Your task to perform on an android device: toggle location history Image 0: 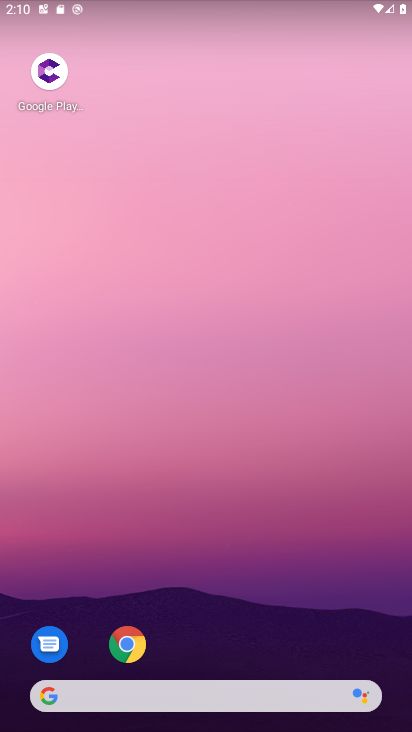
Step 0: drag from (216, 650) to (309, 198)
Your task to perform on an android device: toggle location history Image 1: 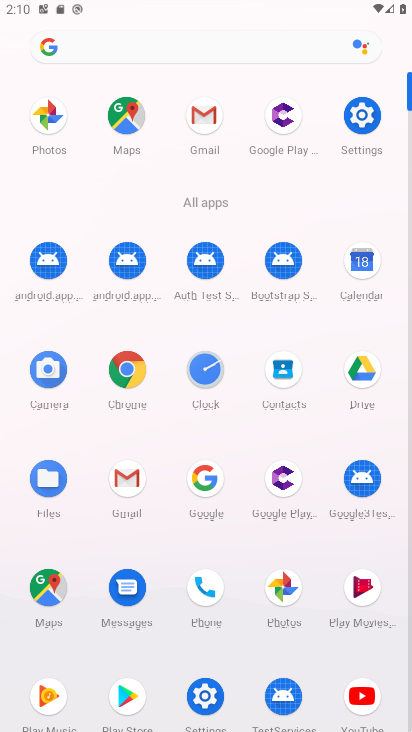
Step 1: drag from (185, 627) to (239, 429)
Your task to perform on an android device: toggle location history Image 2: 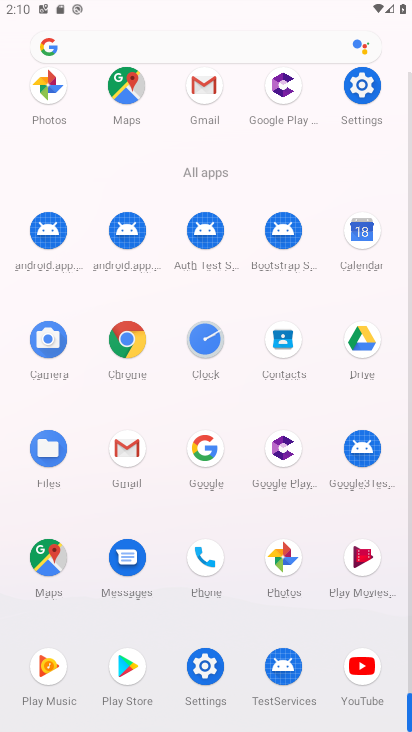
Step 2: click (197, 676)
Your task to perform on an android device: toggle location history Image 3: 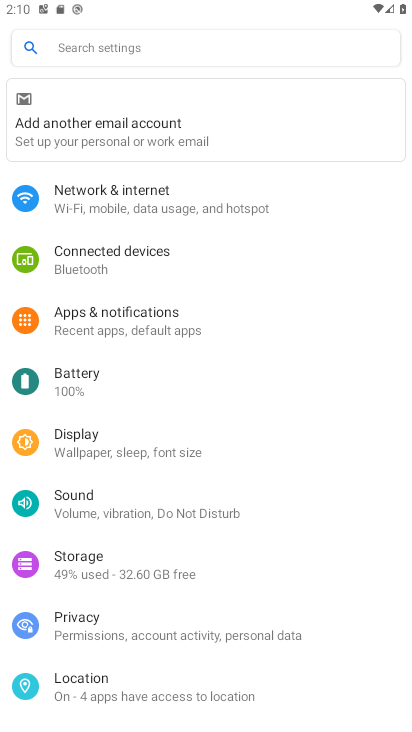
Step 3: drag from (172, 594) to (243, 257)
Your task to perform on an android device: toggle location history Image 4: 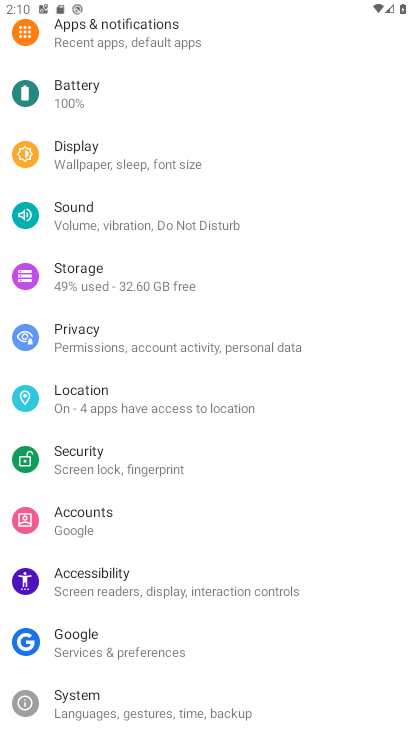
Step 4: click (146, 406)
Your task to perform on an android device: toggle location history Image 5: 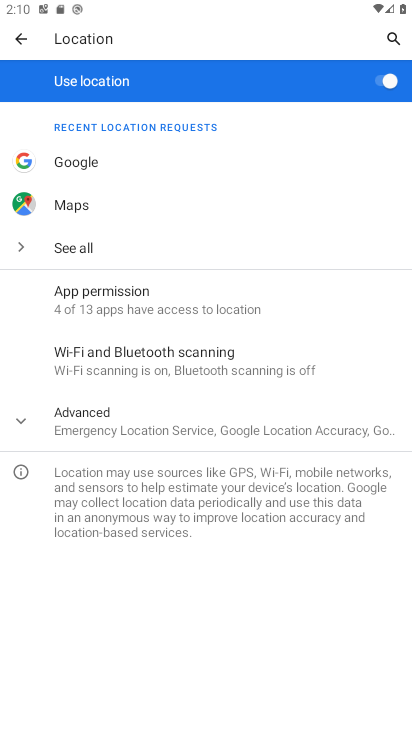
Step 5: click (200, 422)
Your task to perform on an android device: toggle location history Image 6: 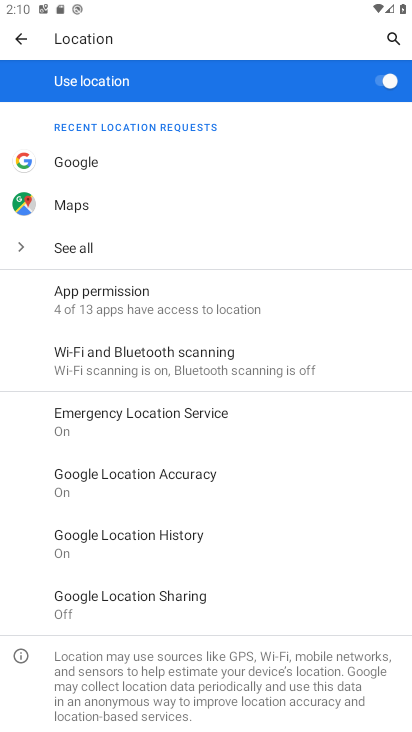
Step 6: click (234, 545)
Your task to perform on an android device: toggle location history Image 7: 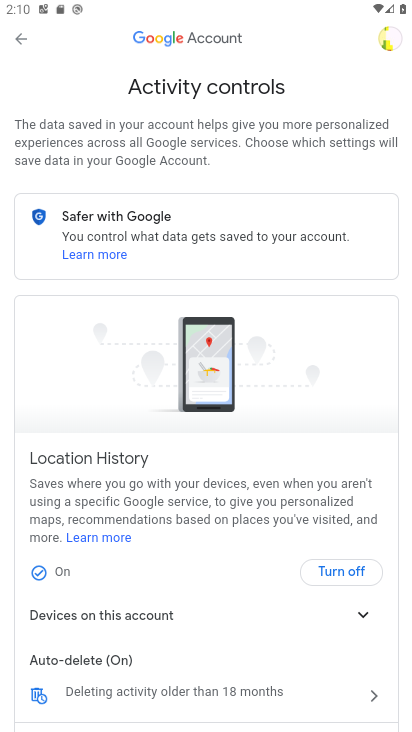
Step 7: click (355, 578)
Your task to perform on an android device: toggle location history Image 8: 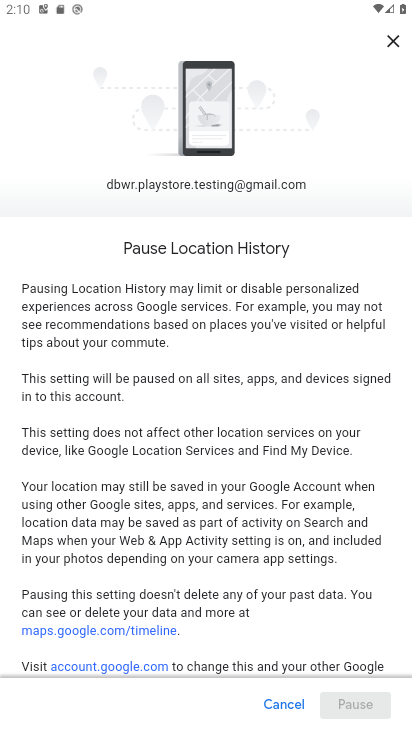
Step 8: drag from (230, 633) to (347, 181)
Your task to perform on an android device: toggle location history Image 9: 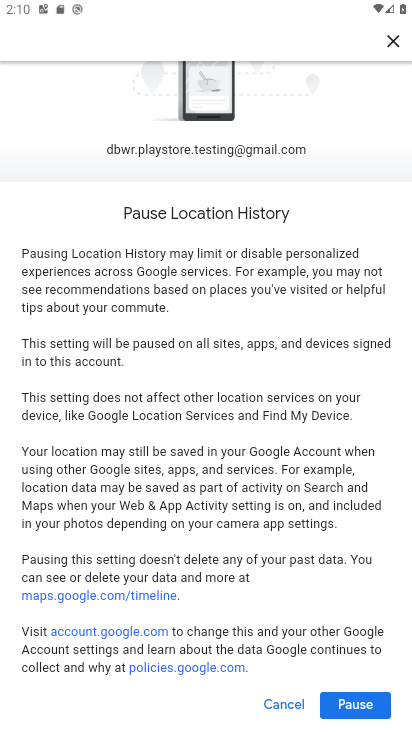
Step 9: click (362, 717)
Your task to perform on an android device: toggle location history Image 10: 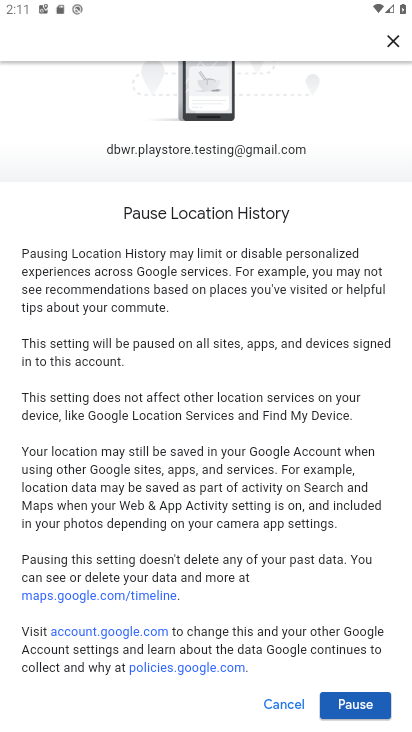
Step 10: click (367, 703)
Your task to perform on an android device: toggle location history Image 11: 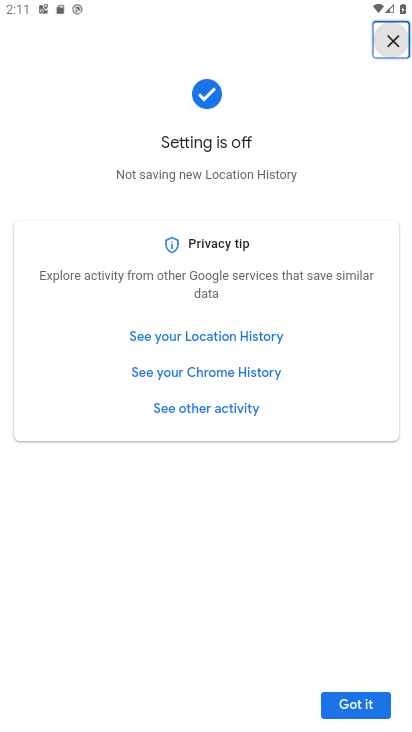
Step 11: click (367, 703)
Your task to perform on an android device: toggle location history Image 12: 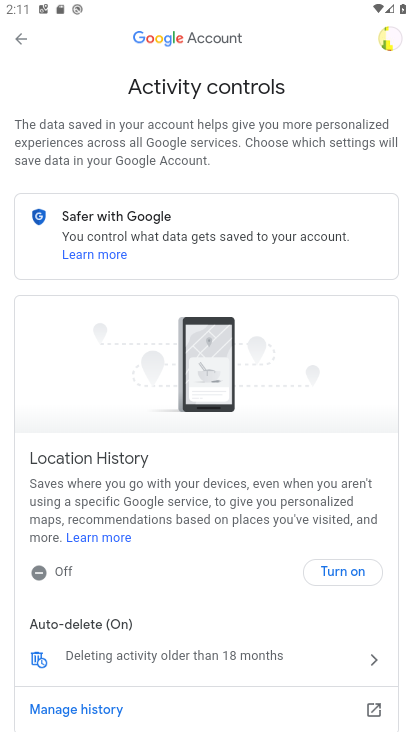
Step 12: task complete